Your task to perform on an android device: read, delete, or share a saved page in the chrome app Image 0: 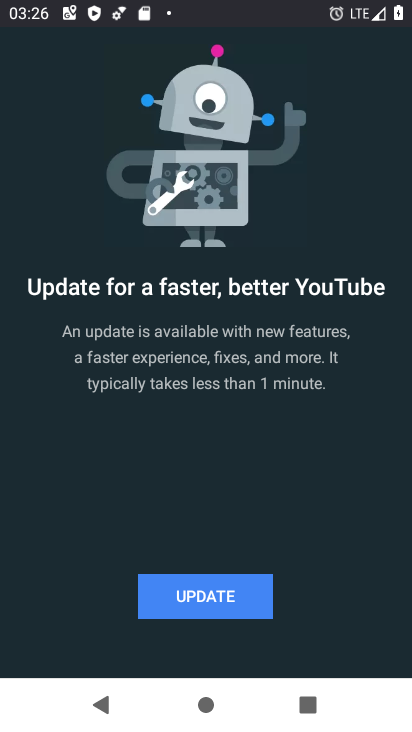
Step 0: press home button
Your task to perform on an android device: read, delete, or share a saved page in the chrome app Image 1: 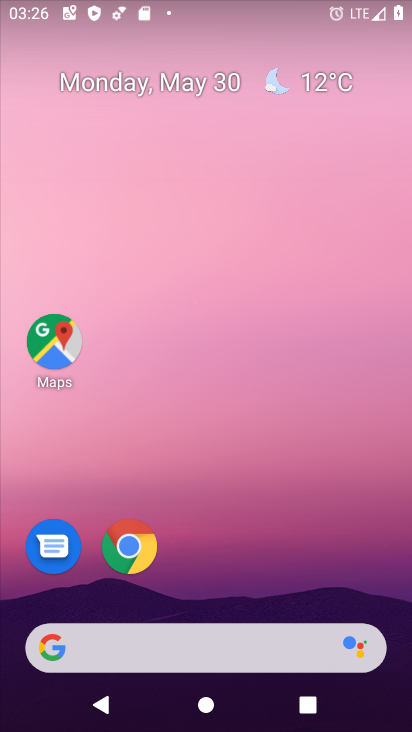
Step 1: click (122, 539)
Your task to perform on an android device: read, delete, or share a saved page in the chrome app Image 2: 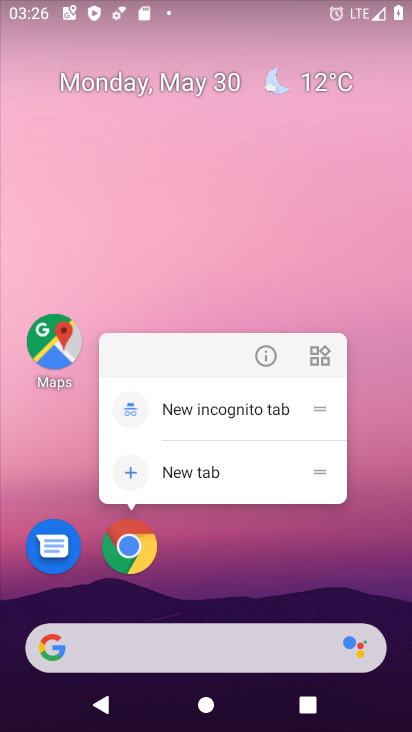
Step 2: click (215, 580)
Your task to perform on an android device: read, delete, or share a saved page in the chrome app Image 3: 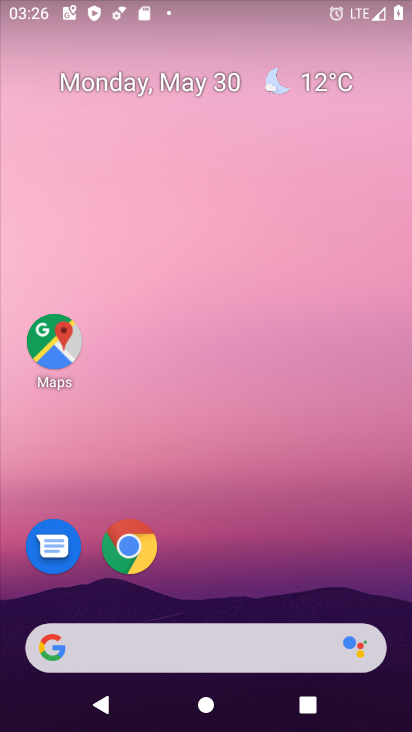
Step 3: click (127, 540)
Your task to perform on an android device: read, delete, or share a saved page in the chrome app Image 4: 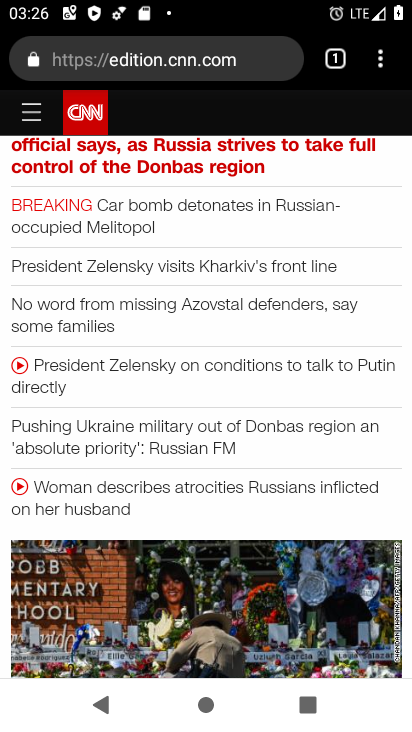
Step 4: click (372, 56)
Your task to perform on an android device: read, delete, or share a saved page in the chrome app Image 5: 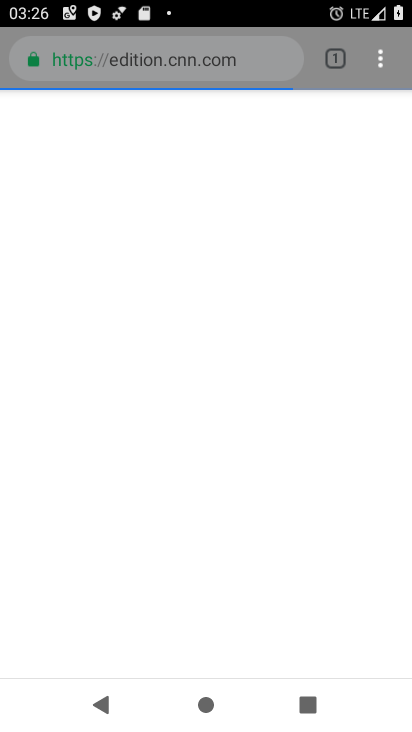
Step 5: click (385, 64)
Your task to perform on an android device: read, delete, or share a saved page in the chrome app Image 6: 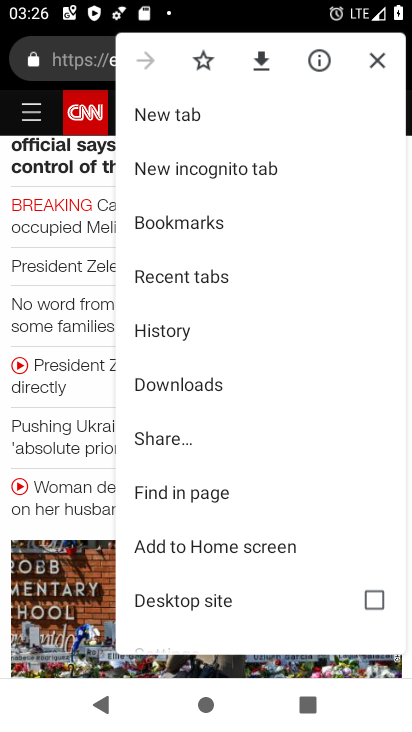
Step 6: click (234, 380)
Your task to perform on an android device: read, delete, or share a saved page in the chrome app Image 7: 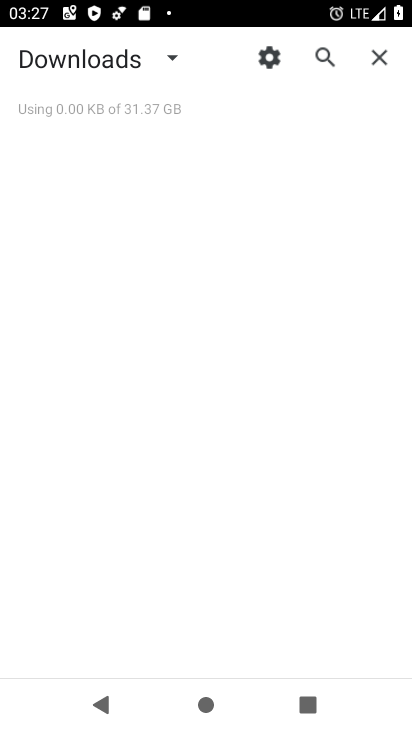
Step 7: task complete